Your task to perform on an android device: open a new tab in the chrome app Image 0: 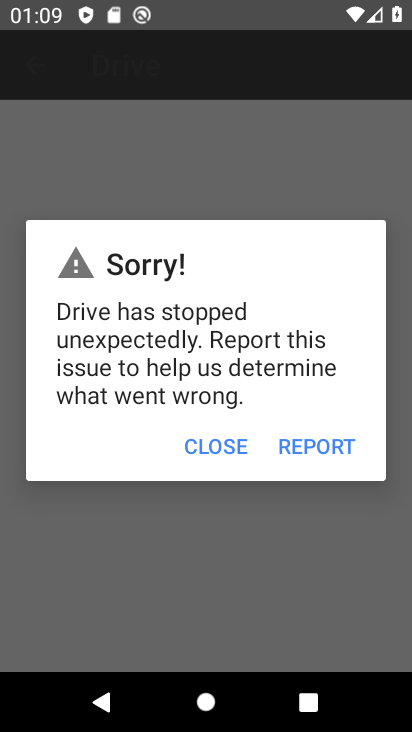
Step 0: press home button
Your task to perform on an android device: open a new tab in the chrome app Image 1: 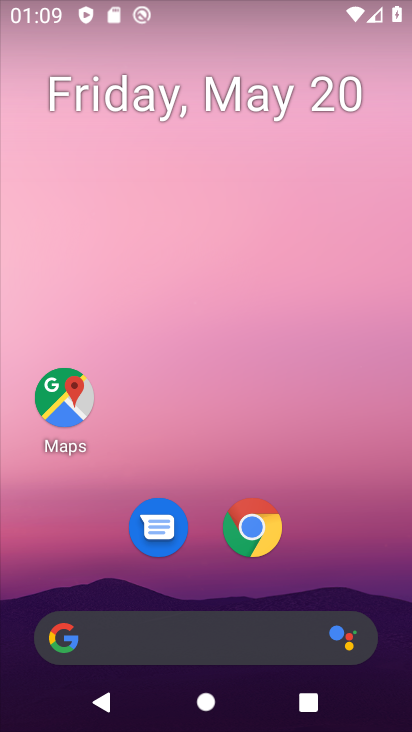
Step 1: click (245, 520)
Your task to perform on an android device: open a new tab in the chrome app Image 2: 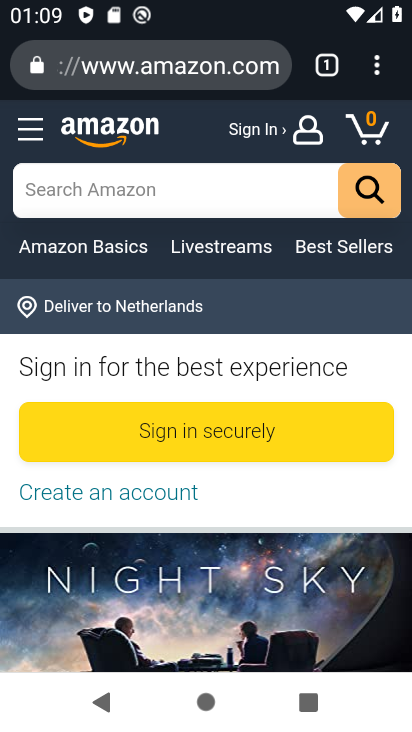
Step 2: click (320, 69)
Your task to perform on an android device: open a new tab in the chrome app Image 3: 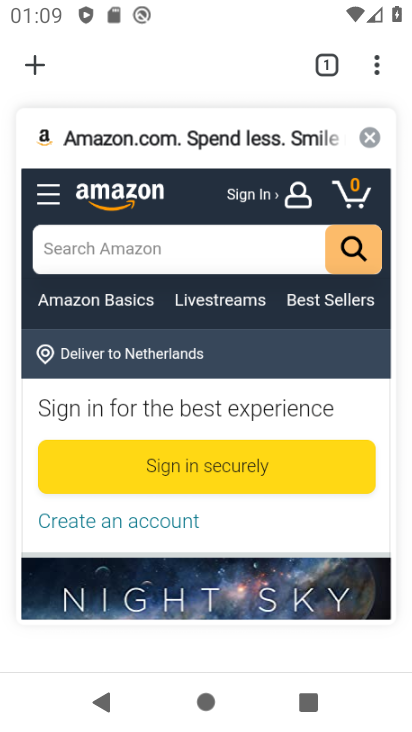
Step 3: click (35, 70)
Your task to perform on an android device: open a new tab in the chrome app Image 4: 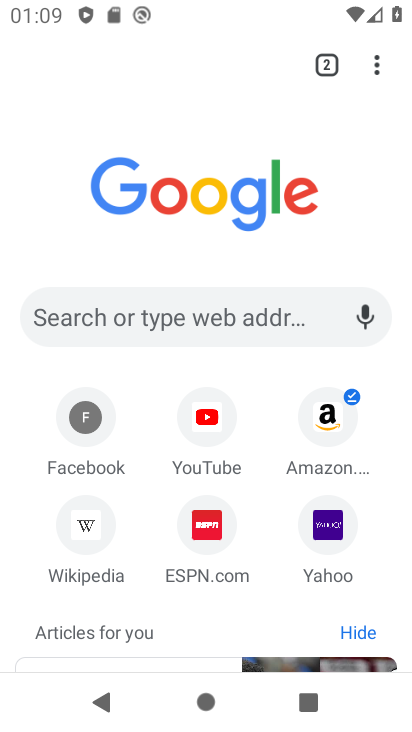
Step 4: task complete